Your task to perform on an android device: open a bookmark in the chrome app Image 0: 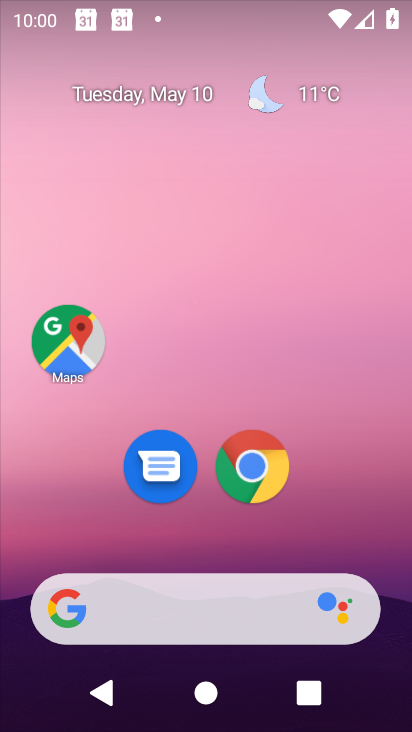
Step 0: click (259, 462)
Your task to perform on an android device: open a bookmark in the chrome app Image 1: 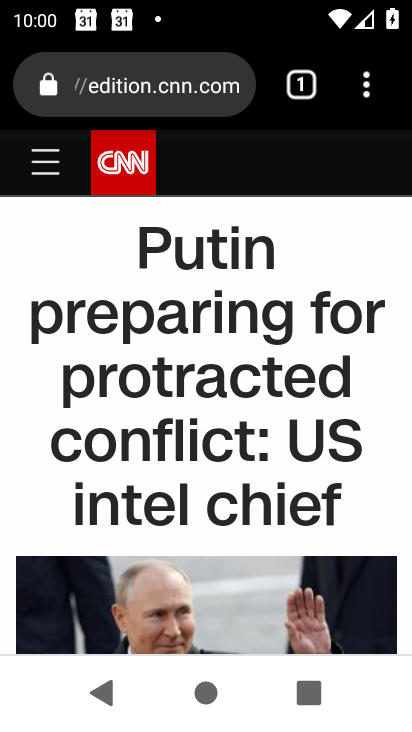
Step 1: drag from (376, 88) to (106, 329)
Your task to perform on an android device: open a bookmark in the chrome app Image 2: 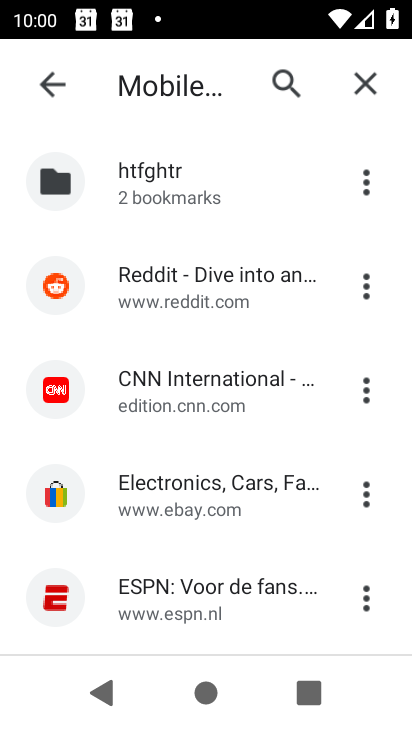
Step 2: click (201, 271)
Your task to perform on an android device: open a bookmark in the chrome app Image 3: 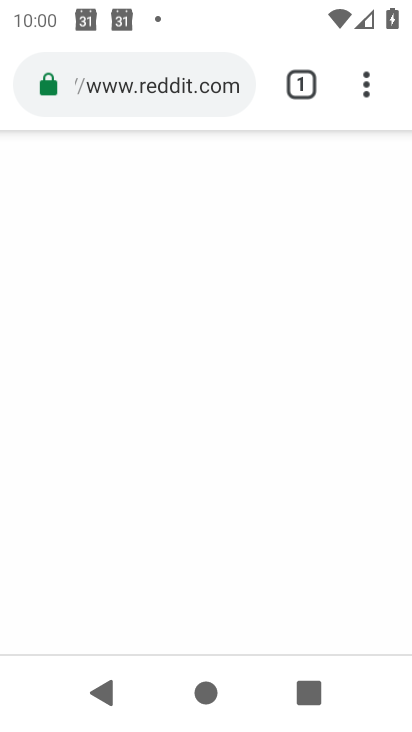
Step 3: task complete